Your task to perform on an android device: What's the weather going to be this weekend? Image 0: 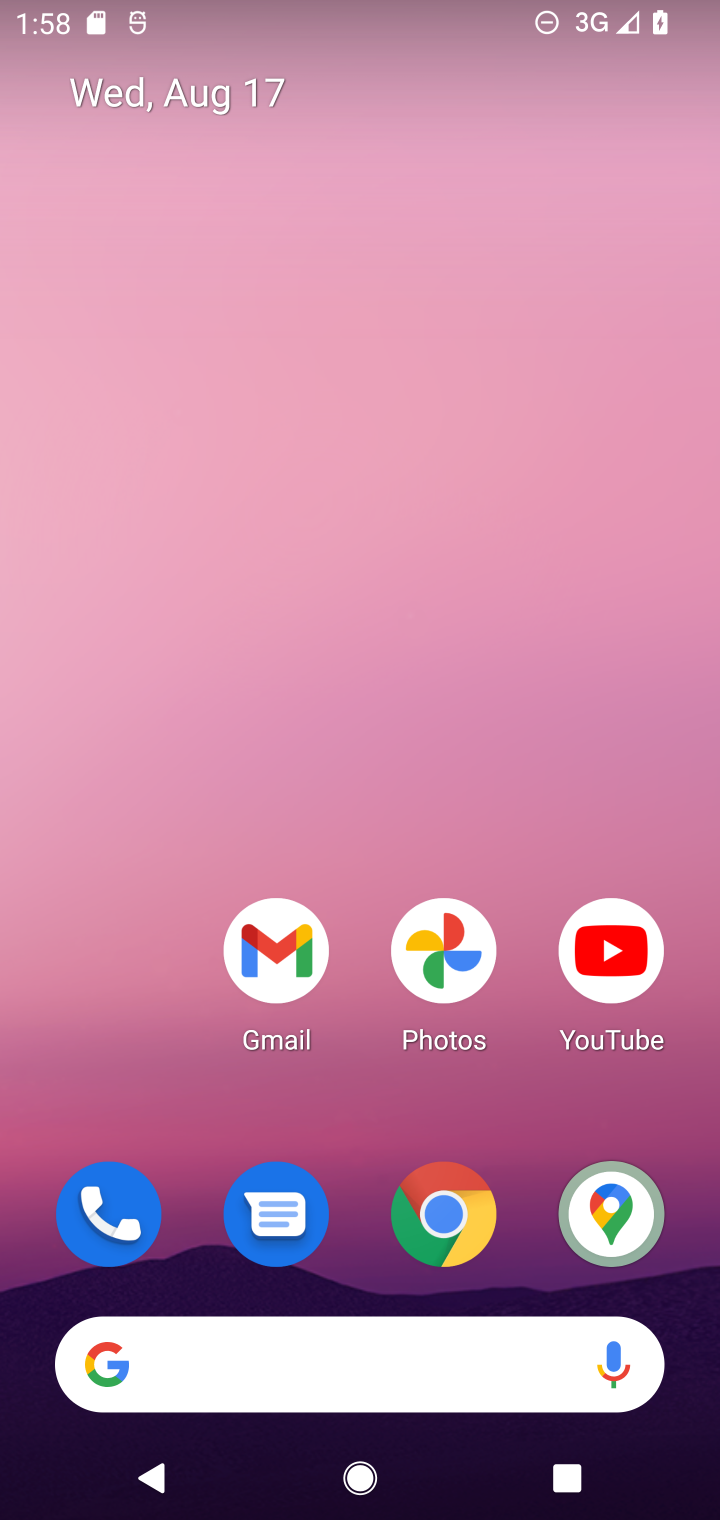
Step 0: drag from (360, 1251) to (298, 292)
Your task to perform on an android device: What's the weather going to be this weekend? Image 1: 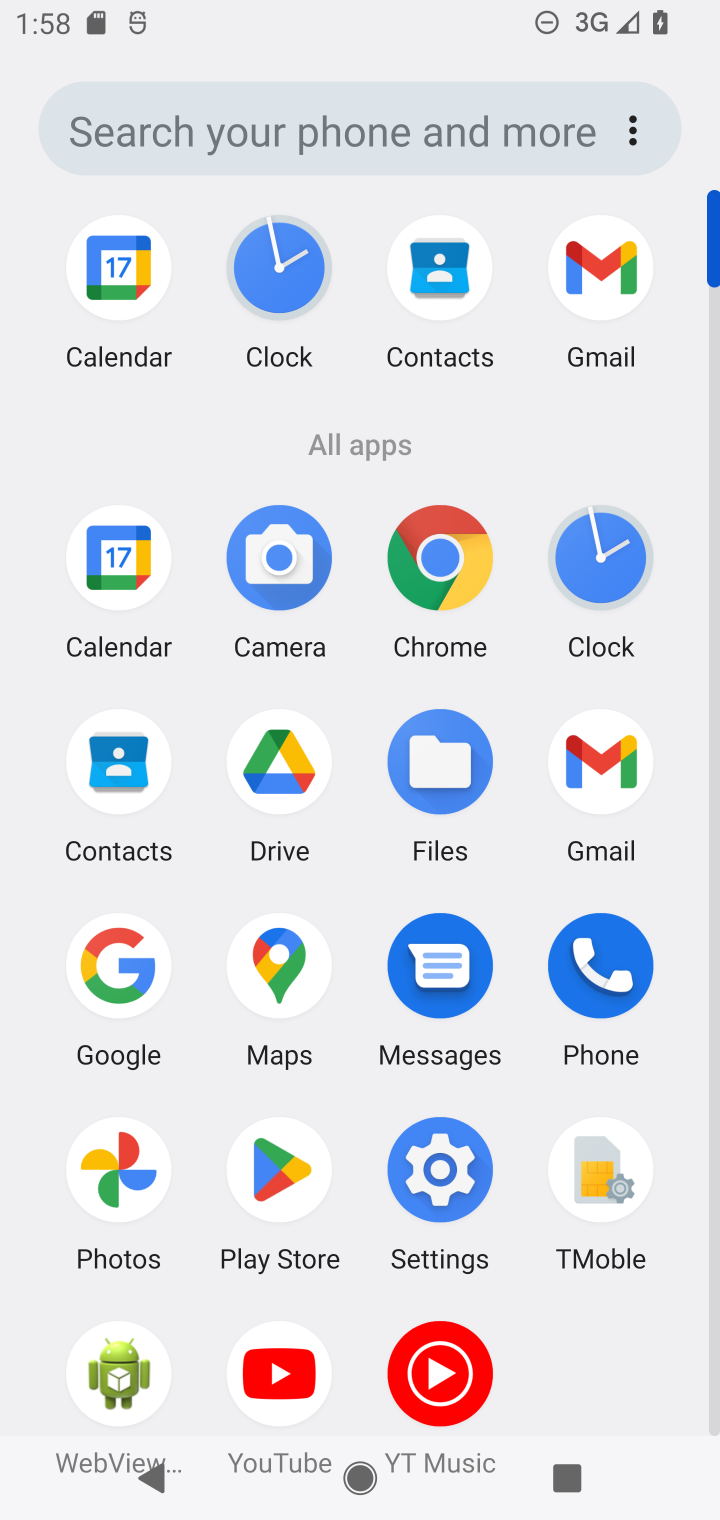
Step 1: click (124, 974)
Your task to perform on an android device: What's the weather going to be this weekend? Image 2: 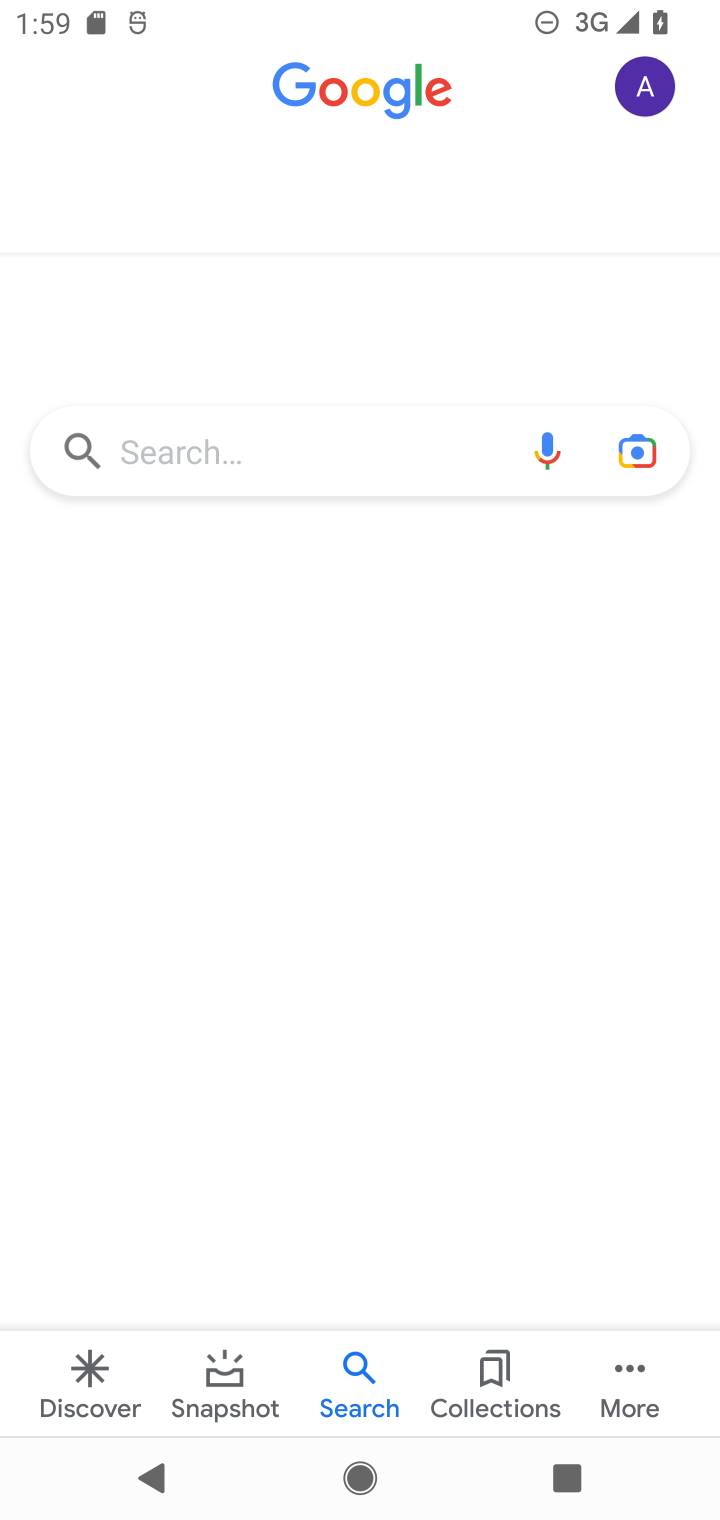
Step 2: click (238, 444)
Your task to perform on an android device: What's the weather going to be this weekend? Image 3: 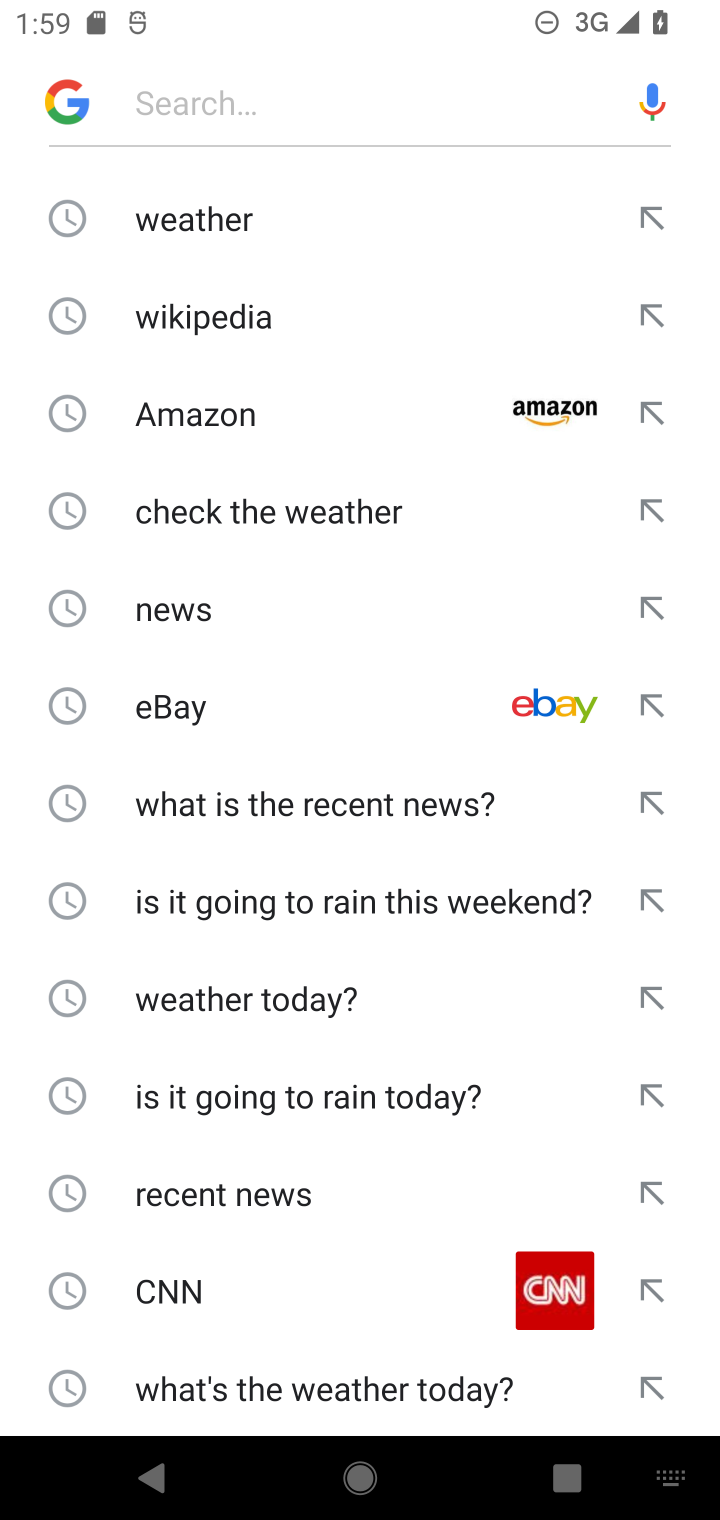
Step 3: click (189, 212)
Your task to perform on an android device: What's the weather going to be this weekend? Image 4: 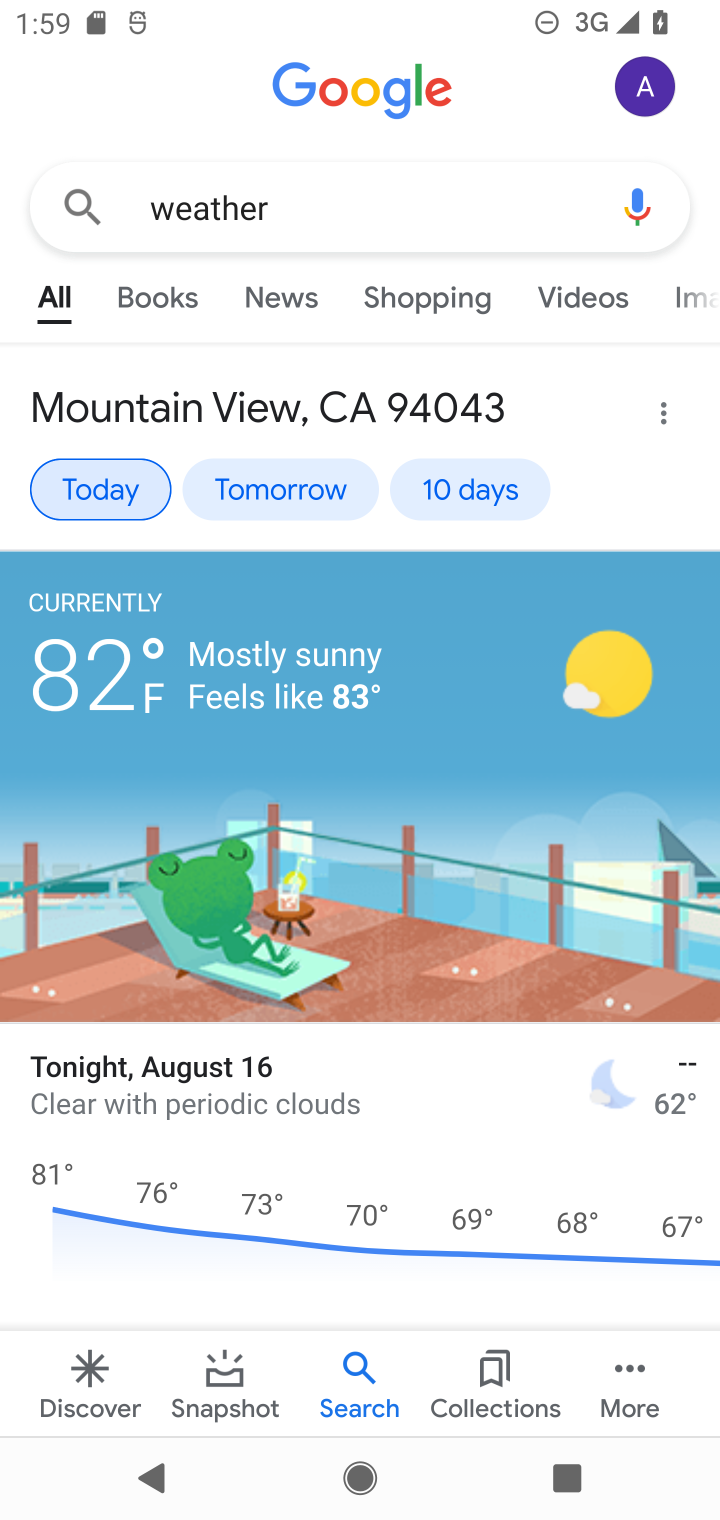
Step 4: click (455, 488)
Your task to perform on an android device: What's the weather going to be this weekend? Image 5: 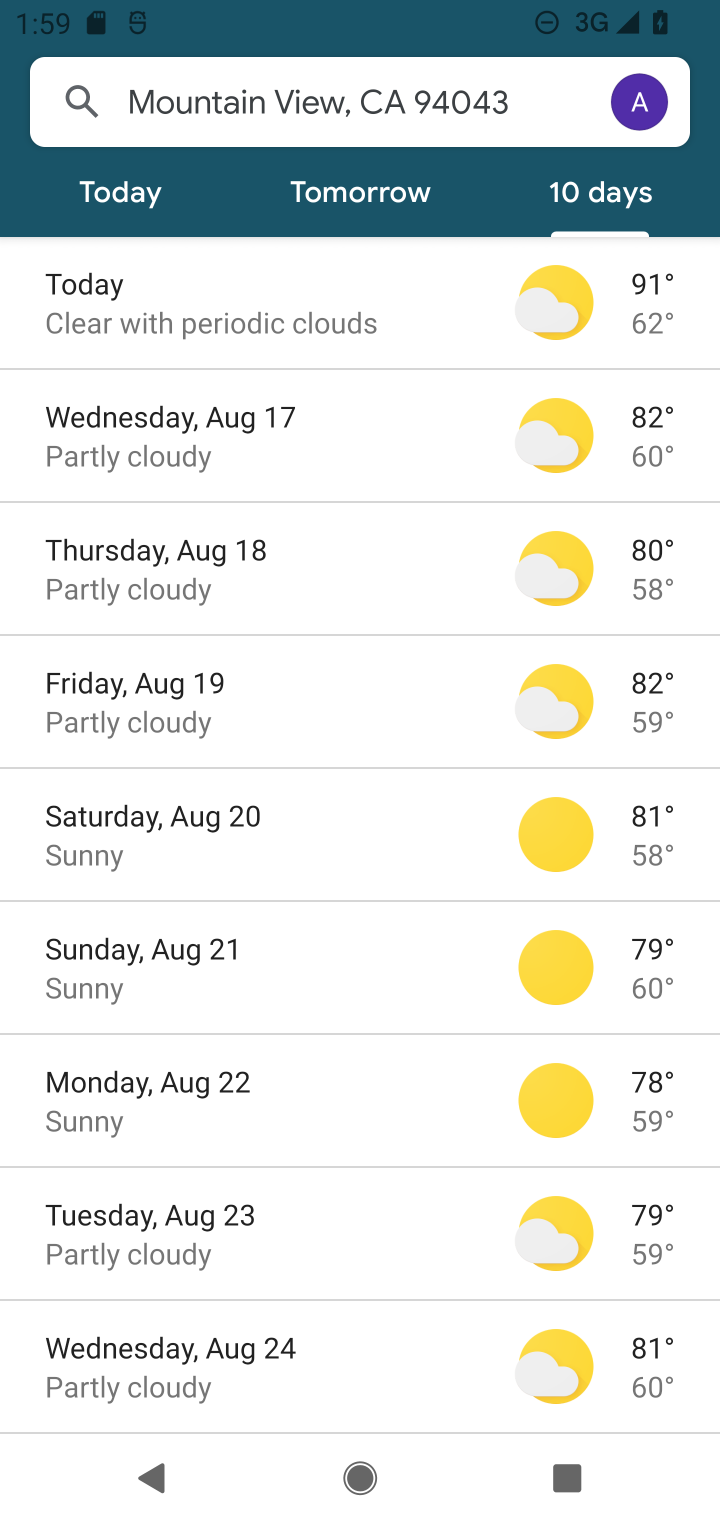
Step 5: task complete